Your task to perform on an android device: Open the phone app and click the voicemail tab. Image 0: 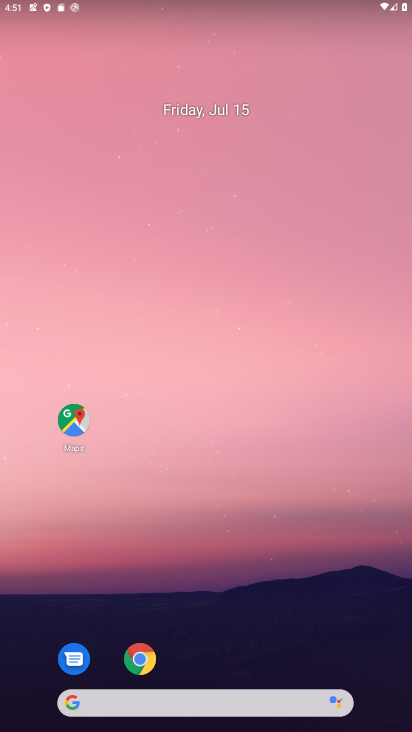
Step 0: drag from (249, 550) to (260, 22)
Your task to perform on an android device: Open the phone app and click the voicemail tab. Image 1: 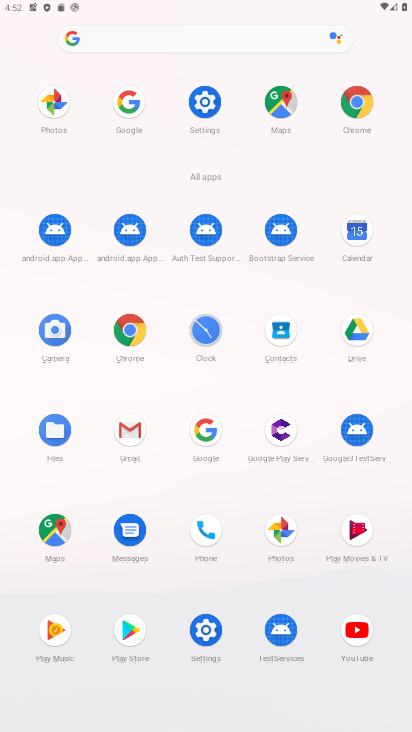
Step 1: click (208, 529)
Your task to perform on an android device: Open the phone app and click the voicemail tab. Image 2: 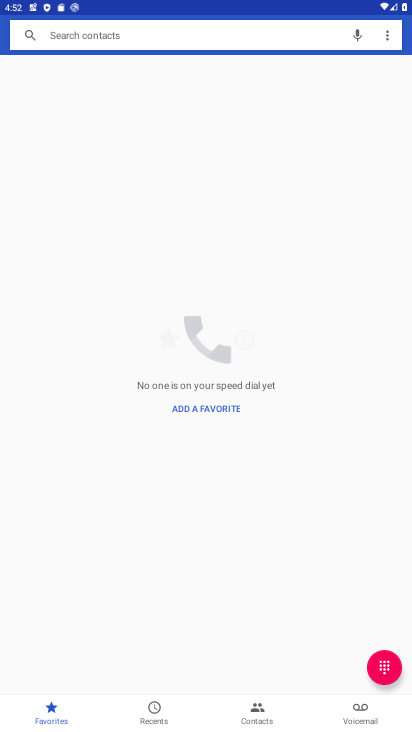
Step 2: click (368, 701)
Your task to perform on an android device: Open the phone app and click the voicemail tab. Image 3: 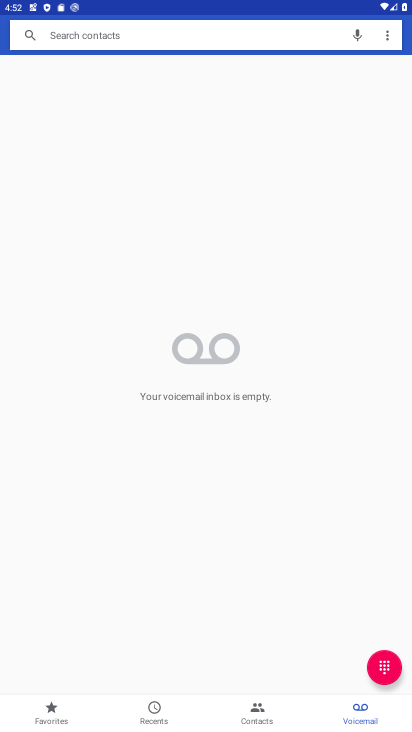
Step 3: task complete